Your task to perform on an android device: all mails in gmail Image 0: 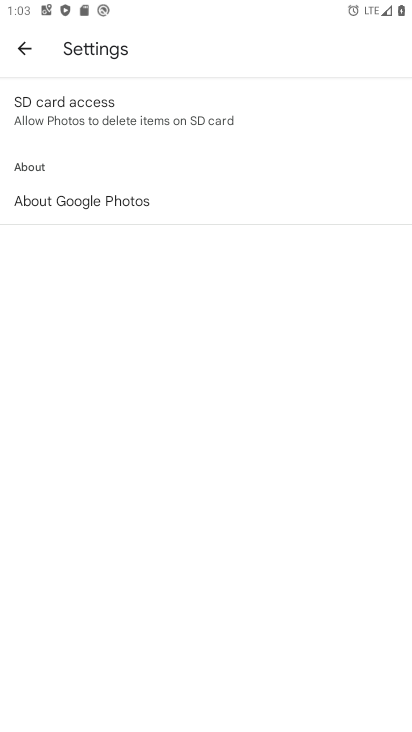
Step 0: press home button
Your task to perform on an android device: all mails in gmail Image 1: 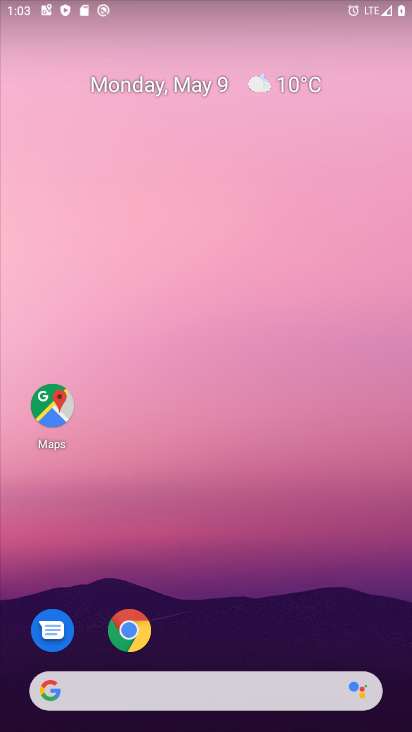
Step 1: drag from (274, 633) to (242, 54)
Your task to perform on an android device: all mails in gmail Image 2: 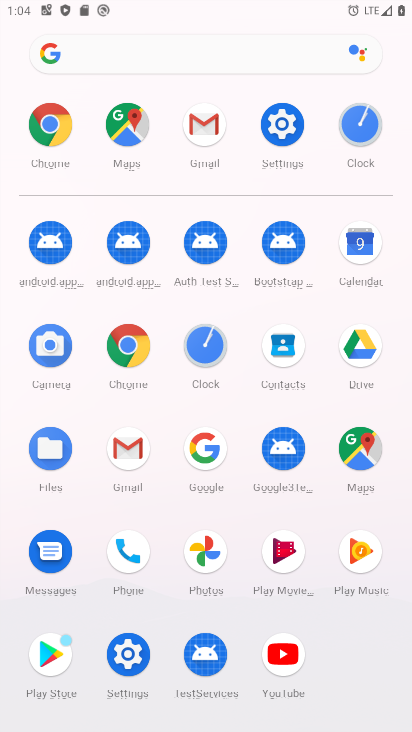
Step 2: click (141, 443)
Your task to perform on an android device: all mails in gmail Image 3: 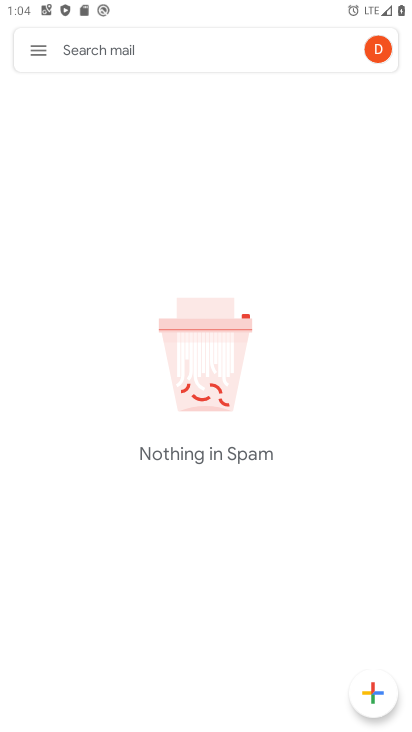
Step 3: click (37, 40)
Your task to perform on an android device: all mails in gmail Image 4: 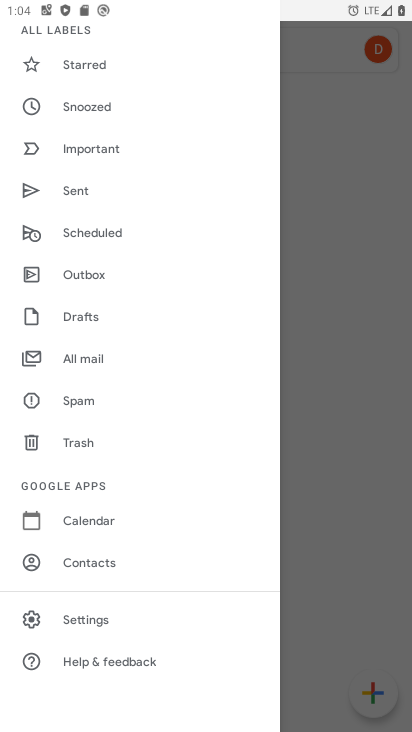
Step 4: click (133, 351)
Your task to perform on an android device: all mails in gmail Image 5: 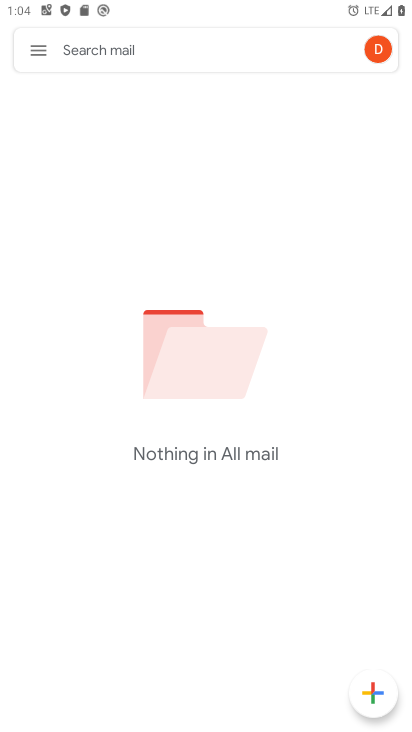
Step 5: task complete